Your task to perform on an android device: turn on airplane mode Image 0: 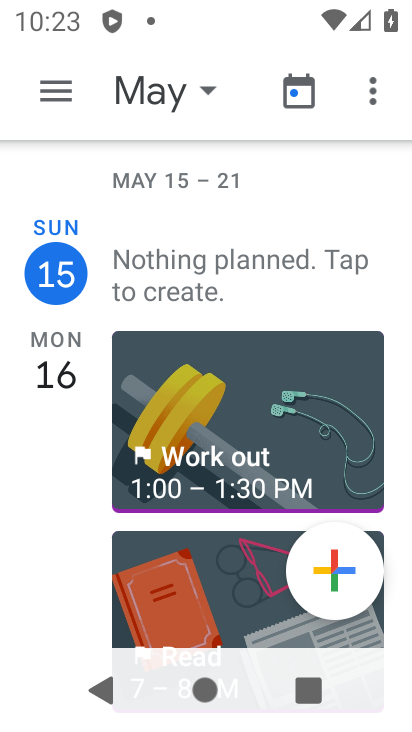
Step 0: press home button
Your task to perform on an android device: turn on airplane mode Image 1: 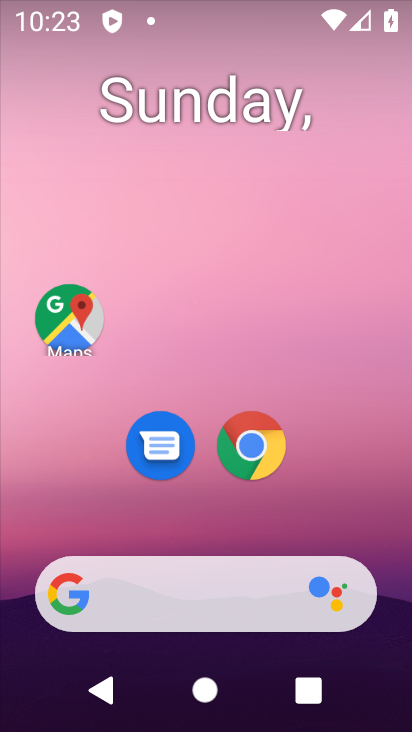
Step 1: drag from (215, 552) to (334, 3)
Your task to perform on an android device: turn on airplane mode Image 2: 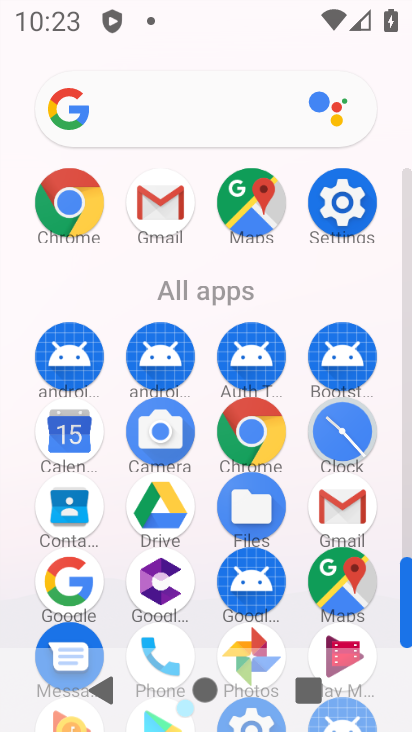
Step 2: click (334, 192)
Your task to perform on an android device: turn on airplane mode Image 3: 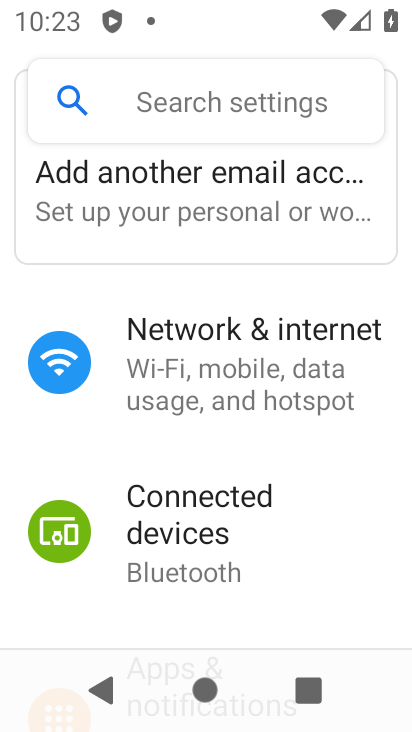
Step 3: click (192, 354)
Your task to perform on an android device: turn on airplane mode Image 4: 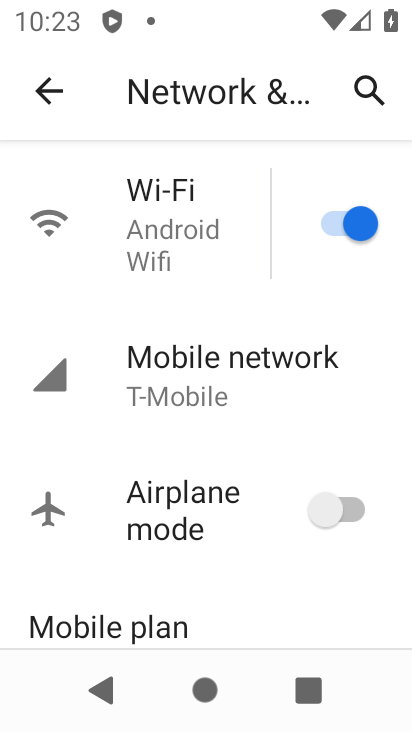
Step 4: click (335, 502)
Your task to perform on an android device: turn on airplane mode Image 5: 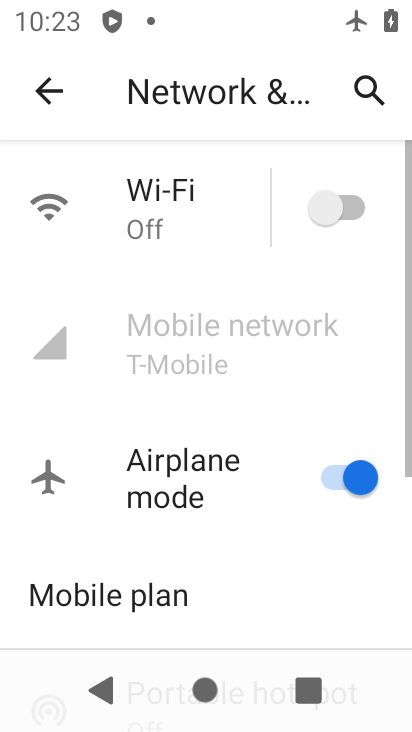
Step 5: task complete